Your task to perform on an android device: Go to calendar. Show me events next week Image 0: 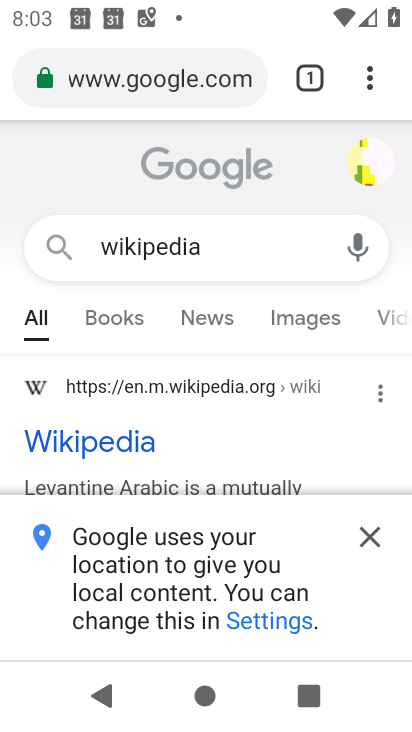
Step 0: press home button
Your task to perform on an android device: Go to calendar. Show me events next week Image 1: 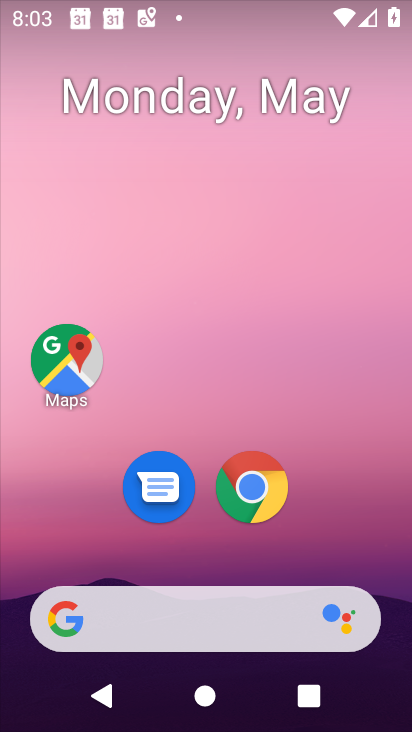
Step 1: drag from (384, 531) to (372, 135)
Your task to perform on an android device: Go to calendar. Show me events next week Image 2: 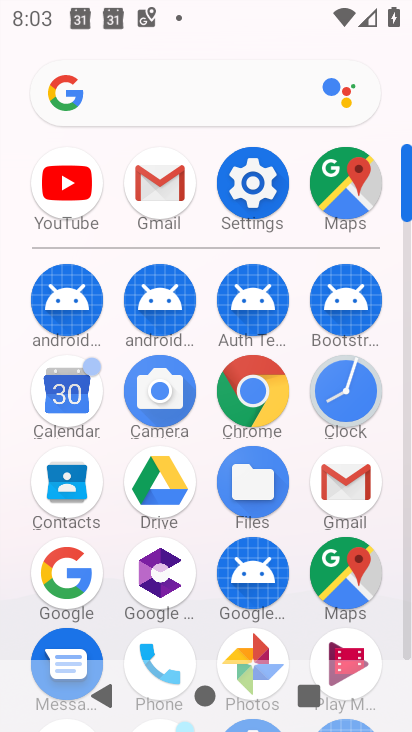
Step 2: click (65, 394)
Your task to perform on an android device: Go to calendar. Show me events next week Image 3: 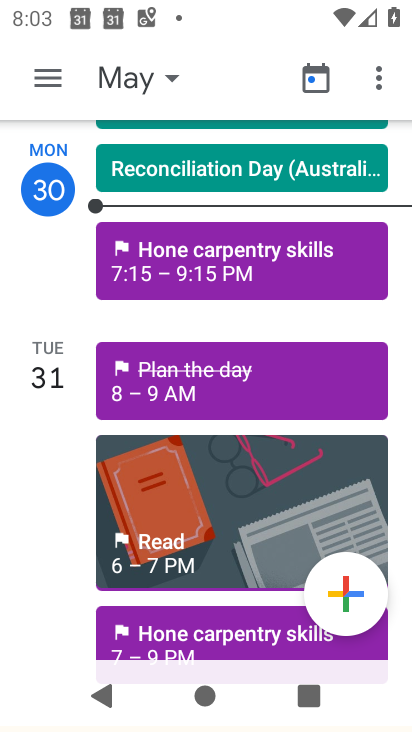
Step 3: drag from (229, 542) to (244, 219)
Your task to perform on an android device: Go to calendar. Show me events next week Image 4: 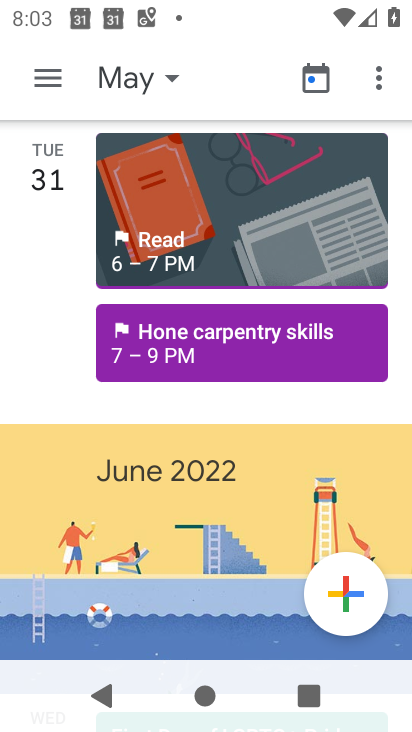
Step 4: drag from (213, 541) to (242, 207)
Your task to perform on an android device: Go to calendar. Show me events next week Image 5: 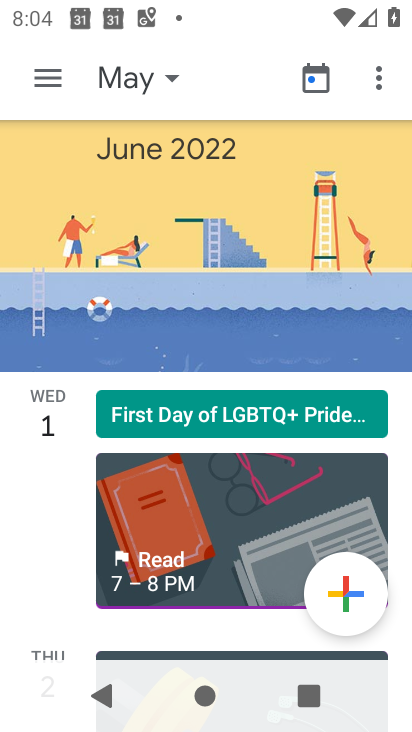
Step 5: drag from (227, 556) to (235, 247)
Your task to perform on an android device: Go to calendar. Show me events next week Image 6: 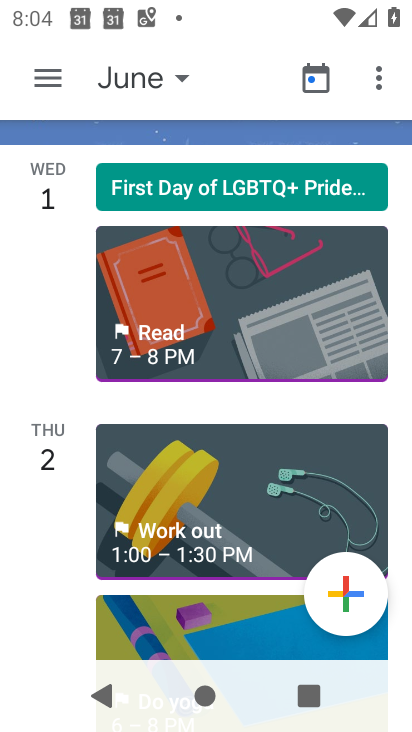
Step 6: drag from (223, 501) to (233, 231)
Your task to perform on an android device: Go to calendar. Show me events next week Image 7: 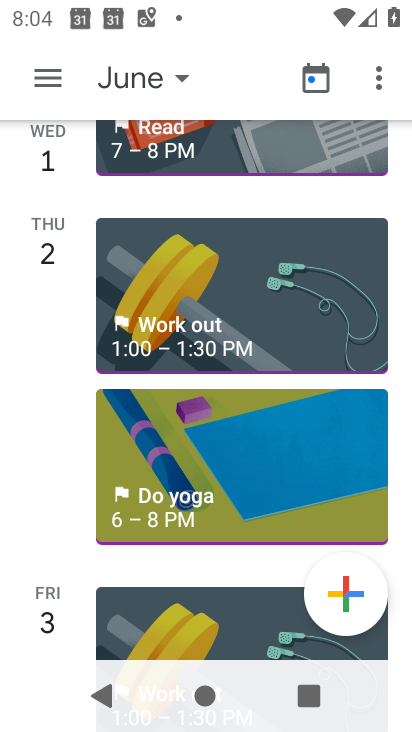
Step 7: drag from (197, 576) to (194, 275)
Your task to perform on an android device: Go to calendar. Show me events next week Image 8: 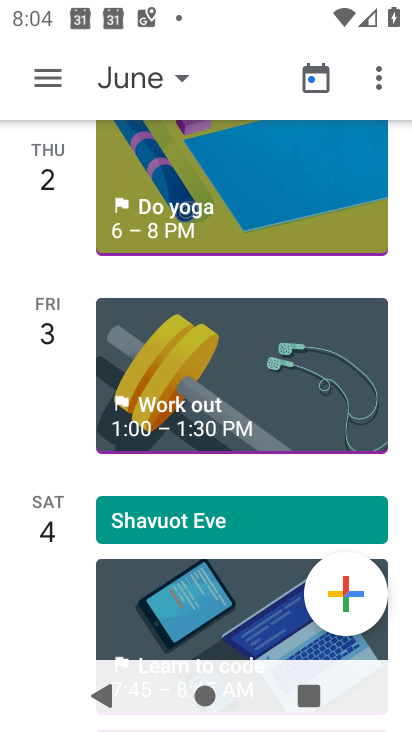
Step 8: drag from (193, 579) to (191, 269)
Your task to perform on an android device: Go to calendar. Show me events next week Image 9: 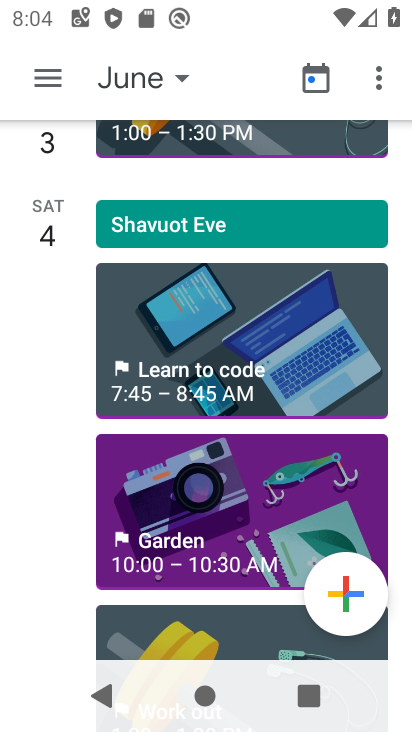
Step 9: drag from (222, 509) to (238, 261)
Your task to perform on an android device: Go to calendar. Show me events next week Image 10: 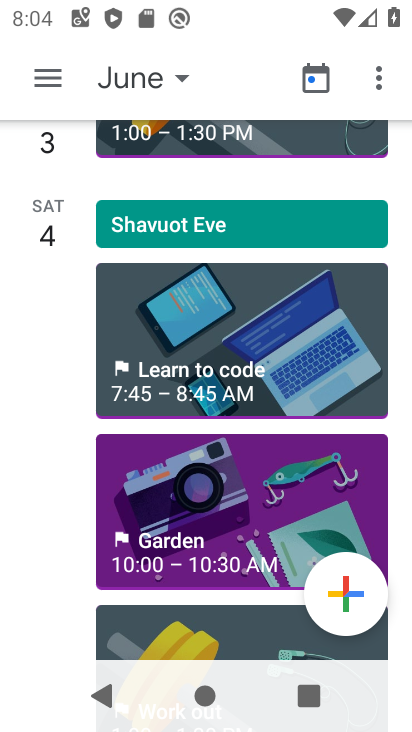
Step 10: click (183, 75)
Your task to perform on an android device: Go to calendar. Show me events next week Image 11: 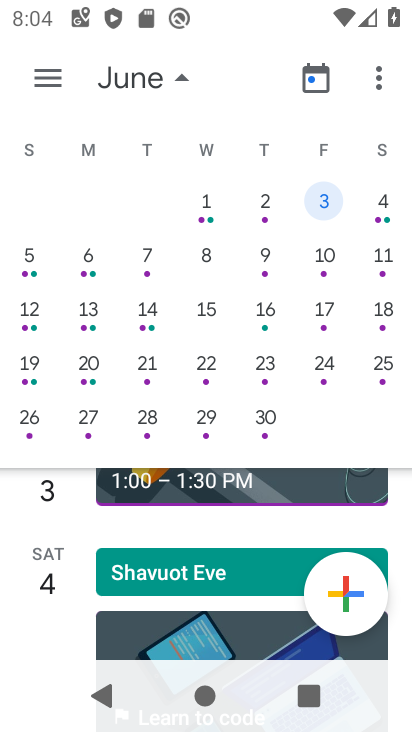
Step 11: click (85, 257)
Your task to perform on an android device: Go to calendar. Show me events next week Image 12: 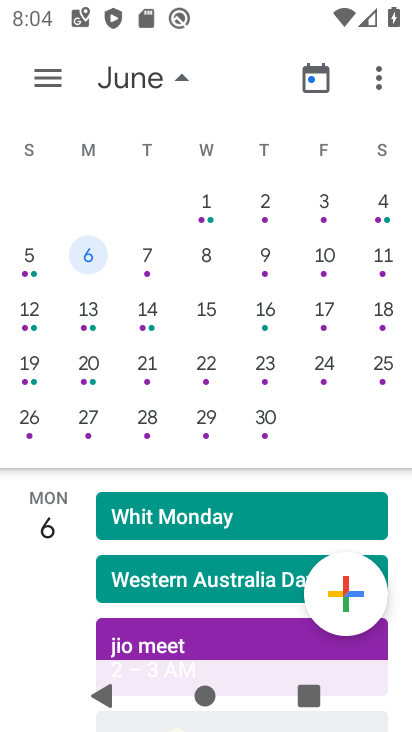
Step 12: task complete